Your task to perform on an android device: Search for asus rog on bestbuy, select the first entry, add it to the cart, then select checkout. Image 0: 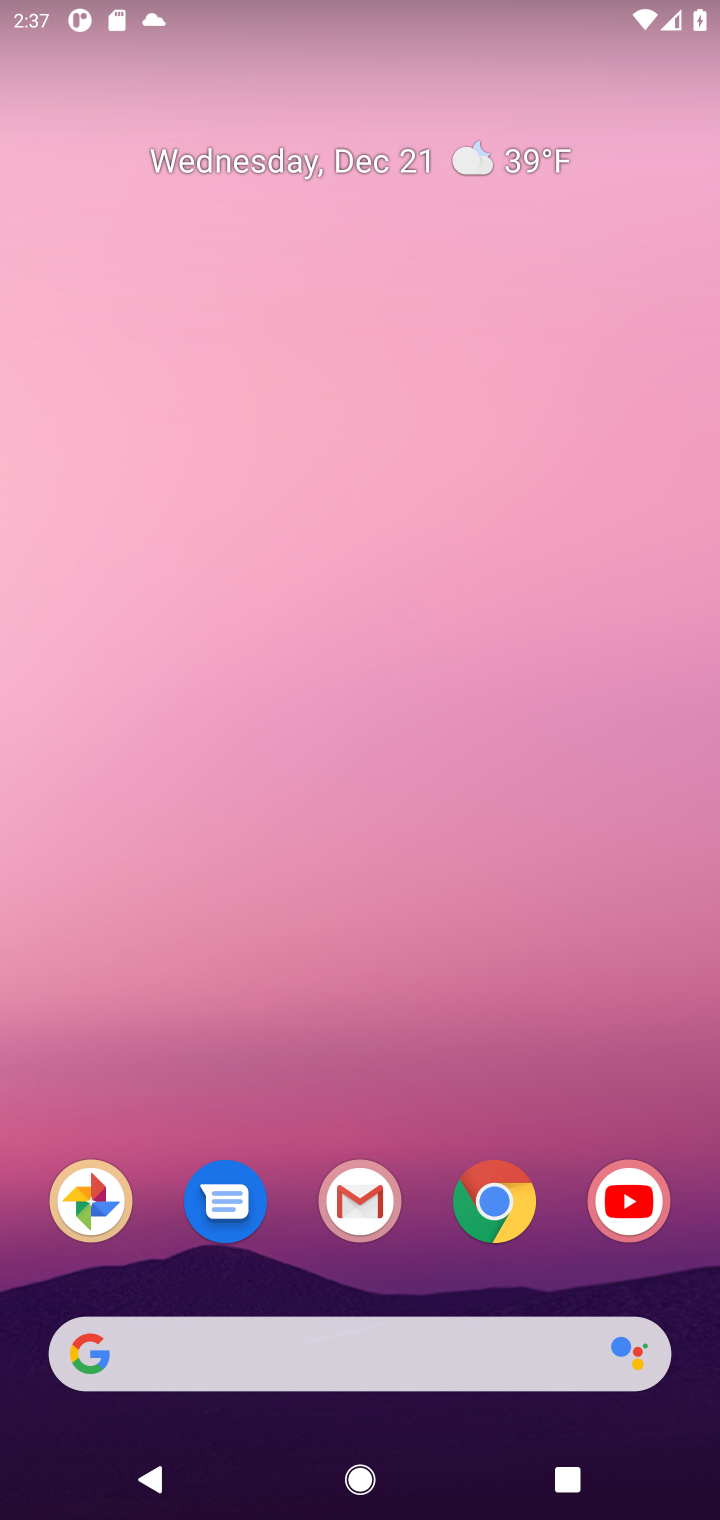
Step 0: click (486, 1217)
Your task to perform on an android device: Search for asus rog on bestbuy, select the first entry, add it to the cart, then select checkout. Image 1: 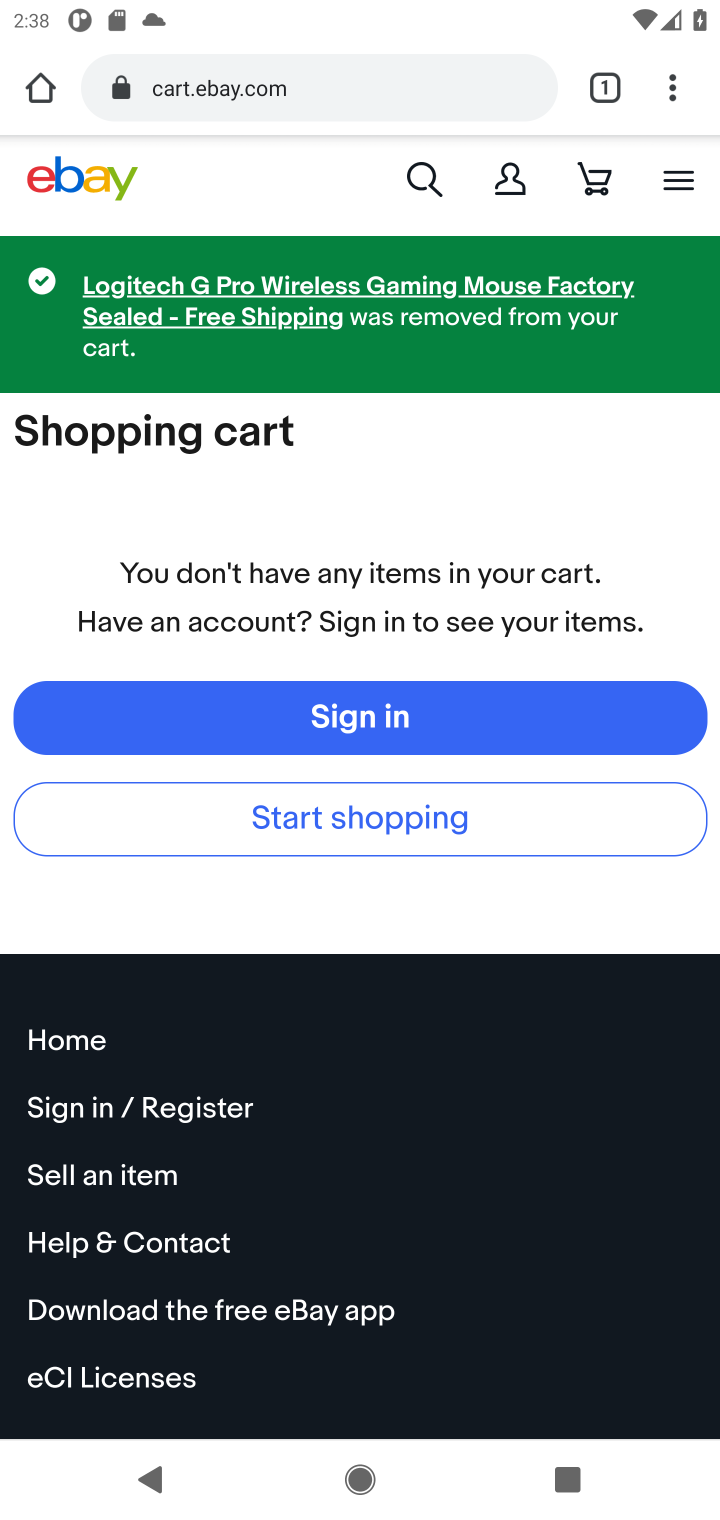
Step 1: click (238, 90)
Your task to perform on an android device: Search for asus rog on bestbuy, select the first entry, add it to the cart, then select checkout. Image 2: 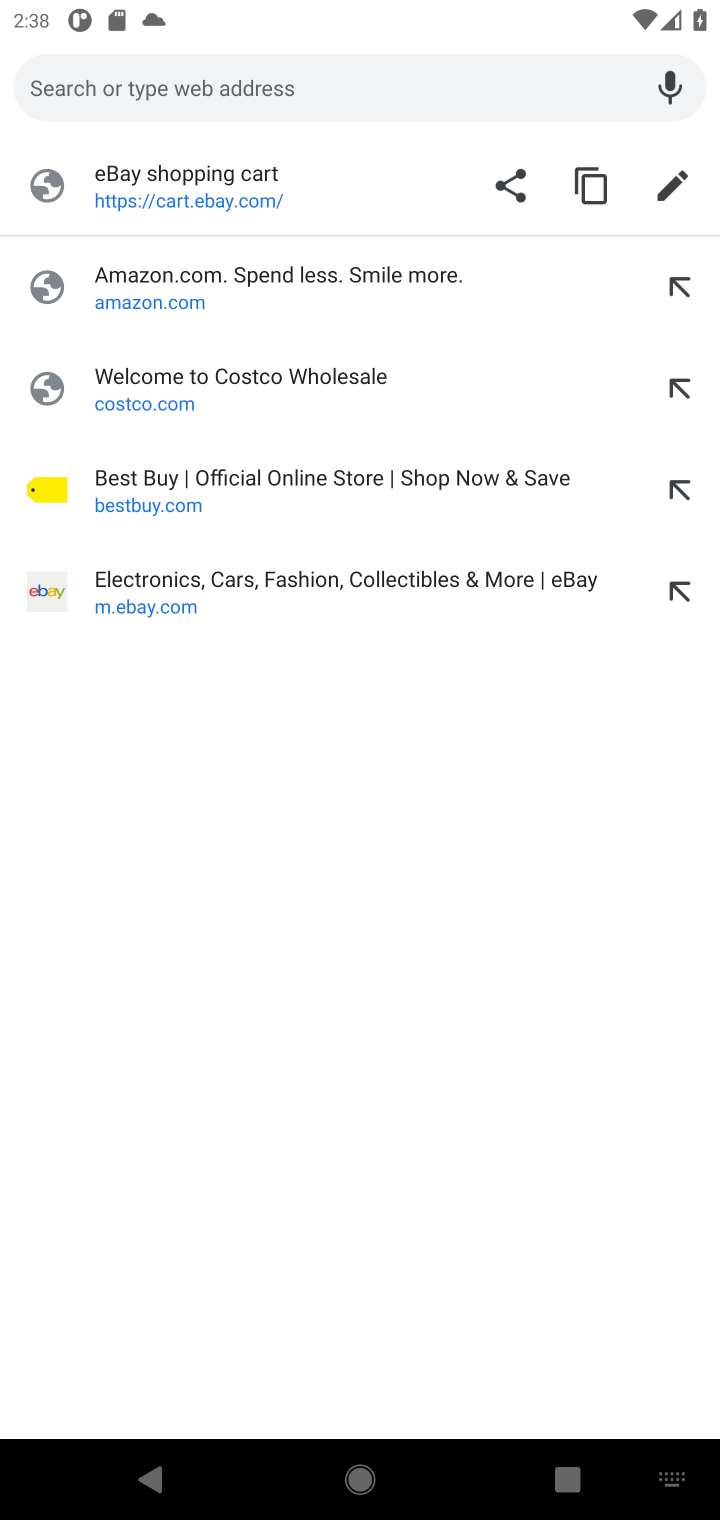
Step 2: click (150, 480)
Your task to perform on an android device: Search for asus rog on bestbuy, select the first entry, add it to the cart, then select checkout. Image 3: 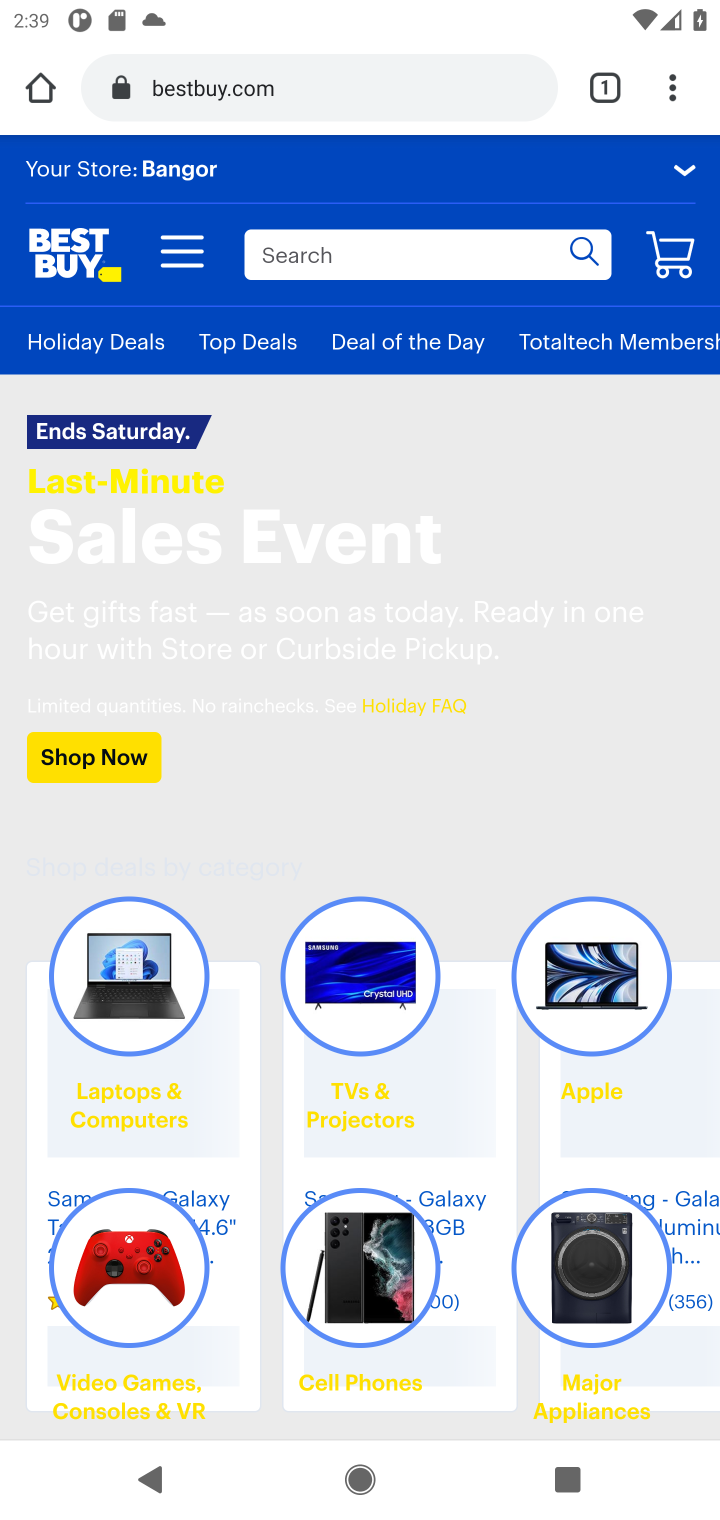
Step 3: click (271, 250)
Your task to perform on an android device: Search for asus rog on bestbuy, select the first entry, add it to the cart, then select checkout. Image 4: 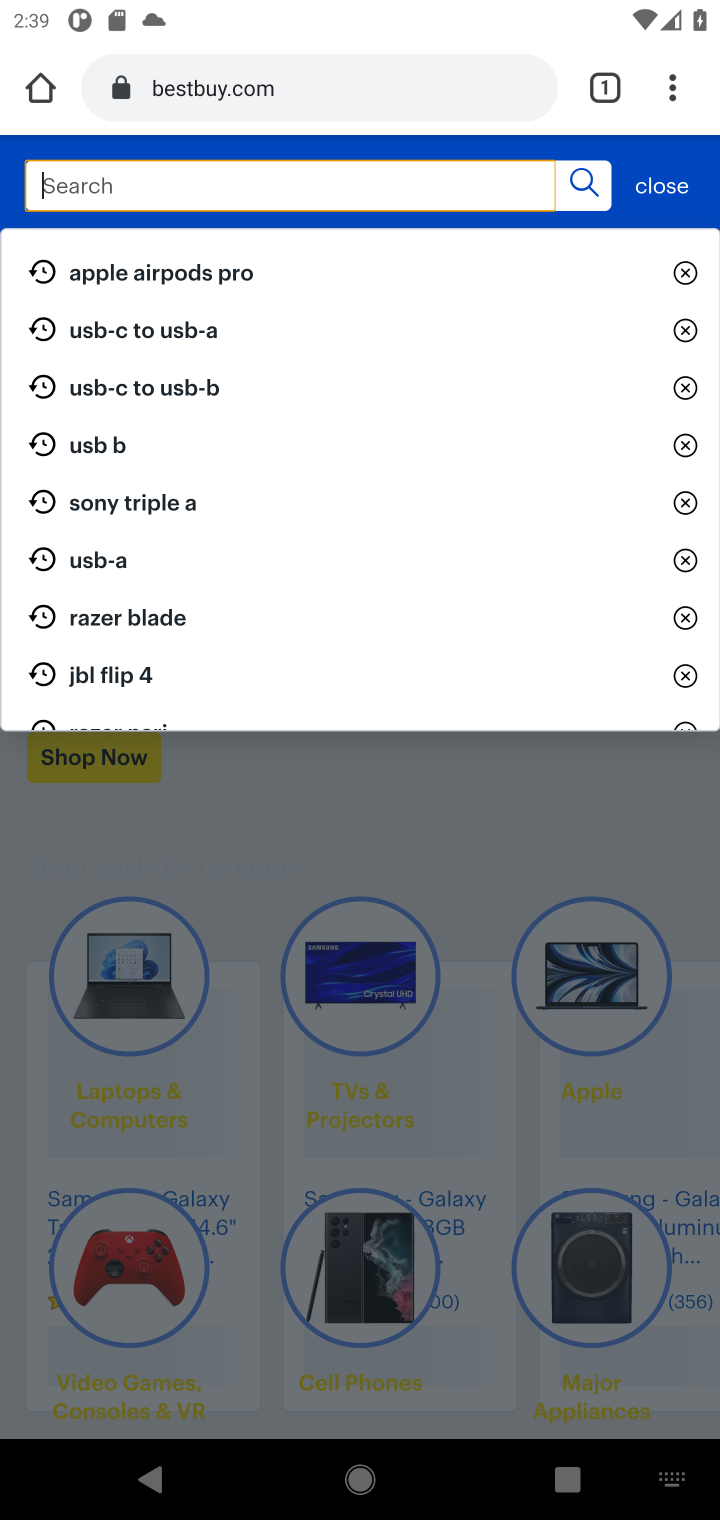
Step 4: type "asus rog"
Your task to perform on an android device: Search for asus rog on bestbuy, select the first entry, add it to the cart, then select checkout. Image 5: 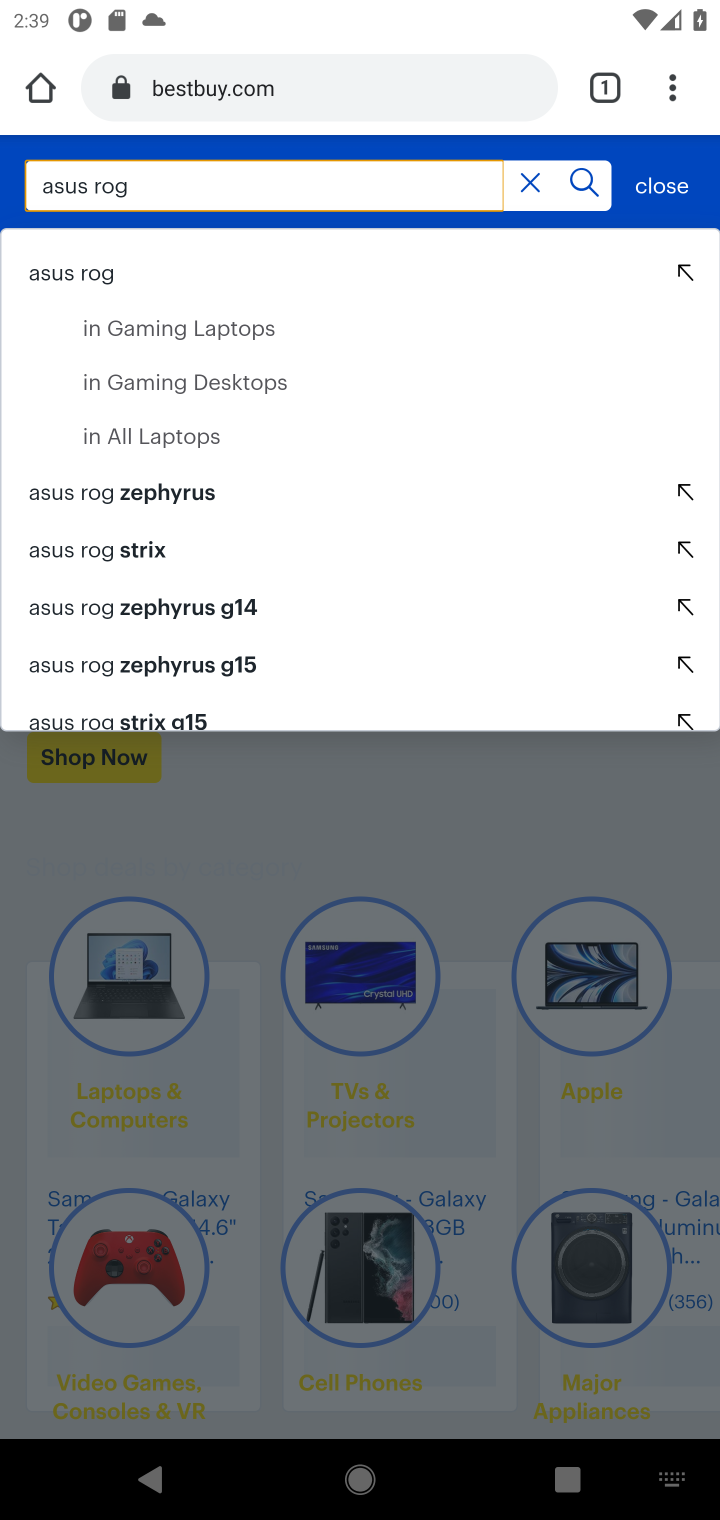
Step 5: click (60, 280)
Your task to perform on an android device: Search for asus rog on bestbuy, select the first entry, add it to the cart, then select checkout. Image 6: 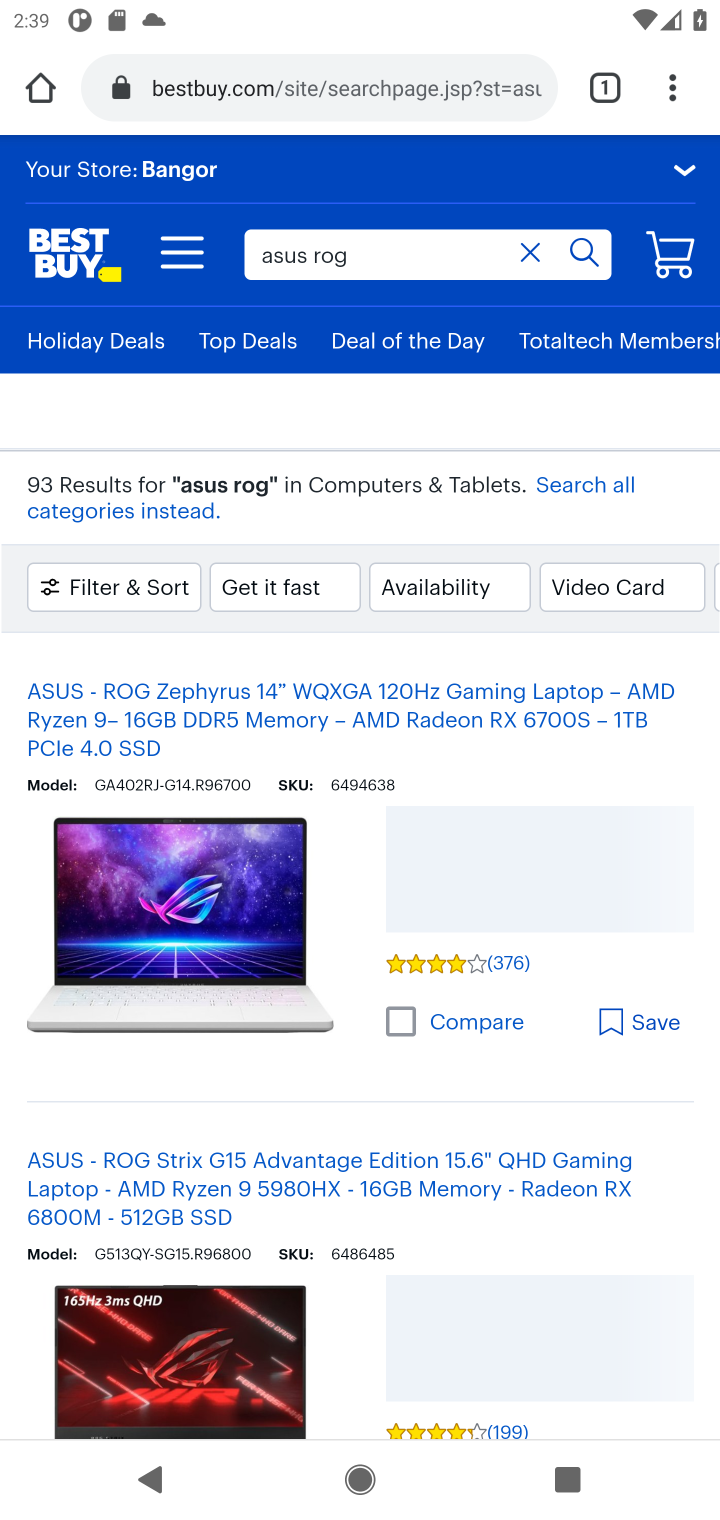
Step 6: drag from (297, 953) to (306, 582)
Your task to perform on an android device: Search for asus rog on bestbuy, select the first entry, add it to the cart, then select checkout. Image 7: 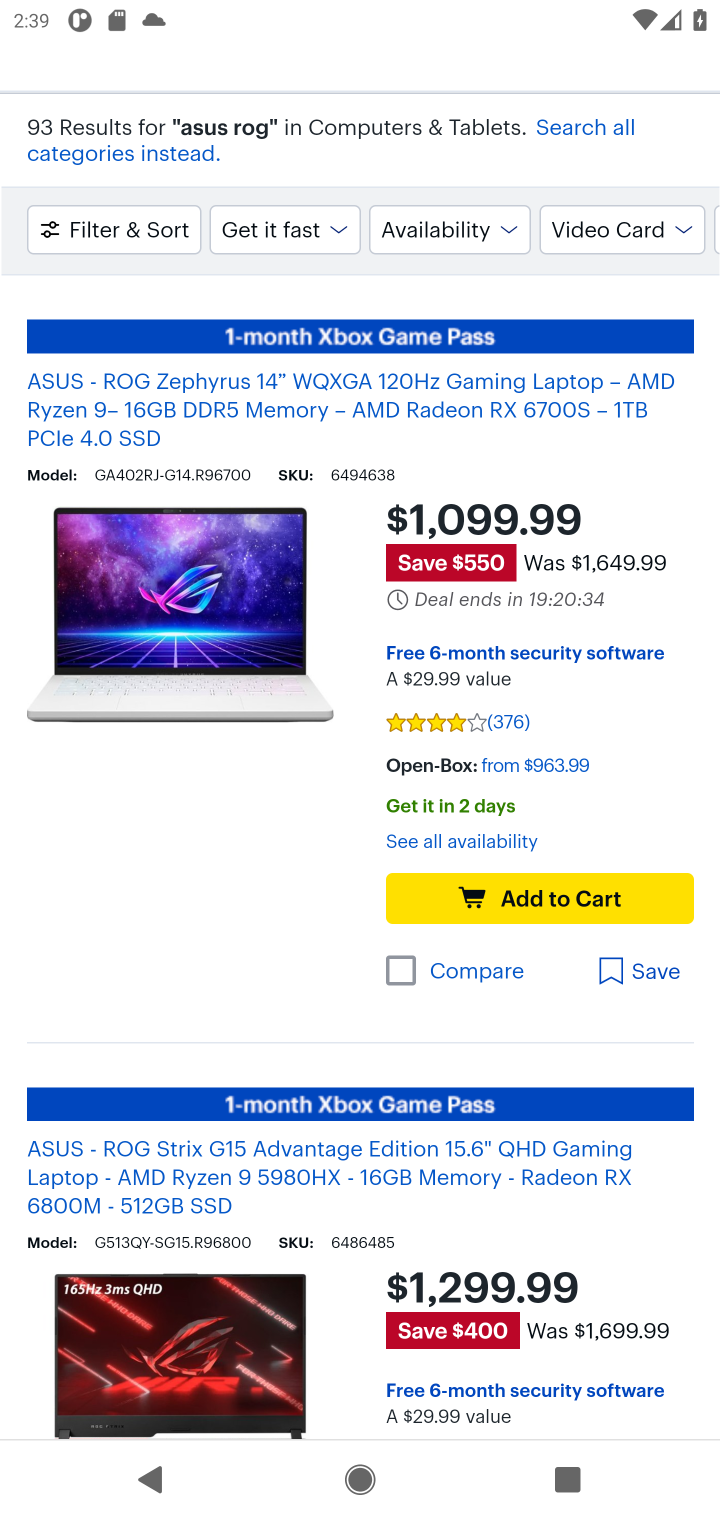
Step 7: click (536, 823)
Your task to perform on an android device: Search for asus rog on bestbuy, select the first entry, add it to the cart, then select checkout. Image 8: 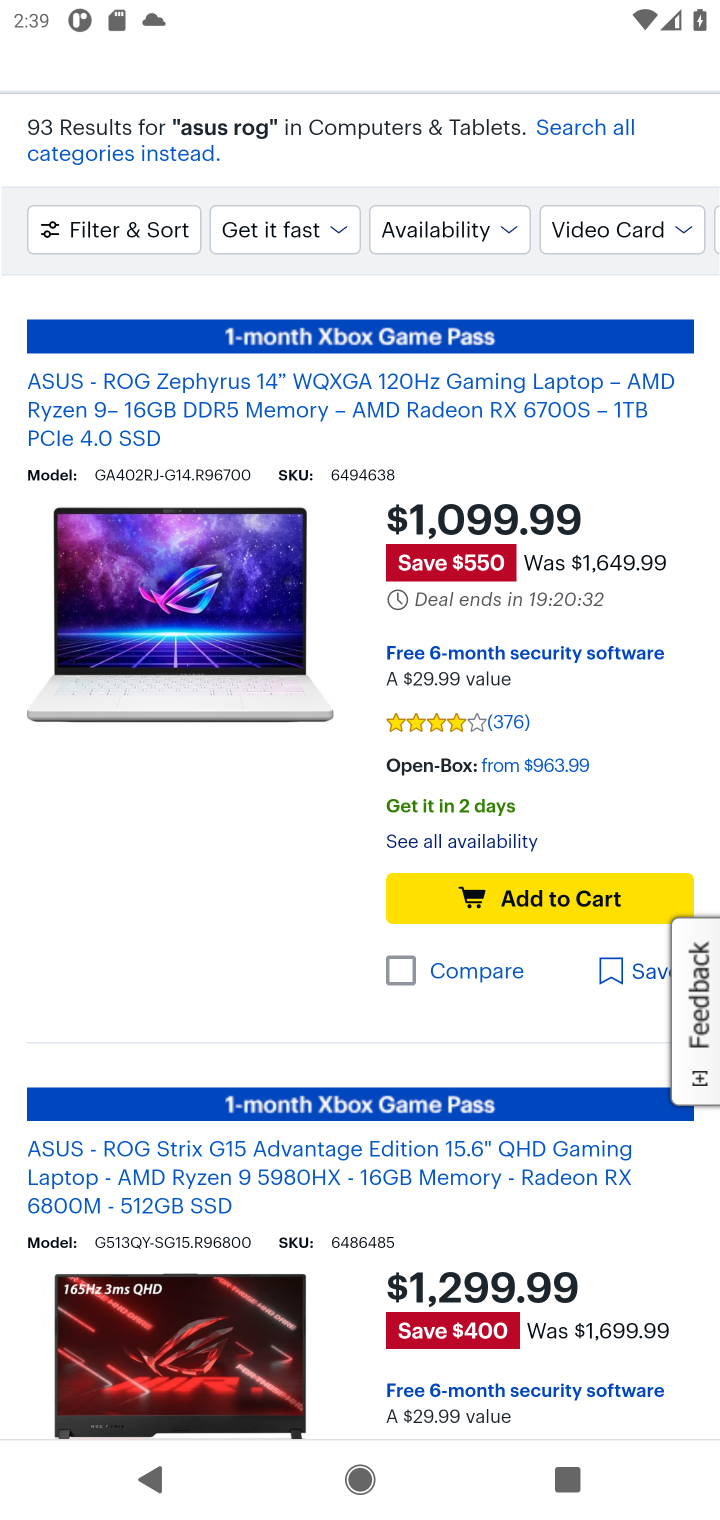
Step 8: click (520, 893)
Your task to perform on an android device: Search for asus rog on bestbuy, select the first entry, add it to the cart, then select checkout. Image 9: 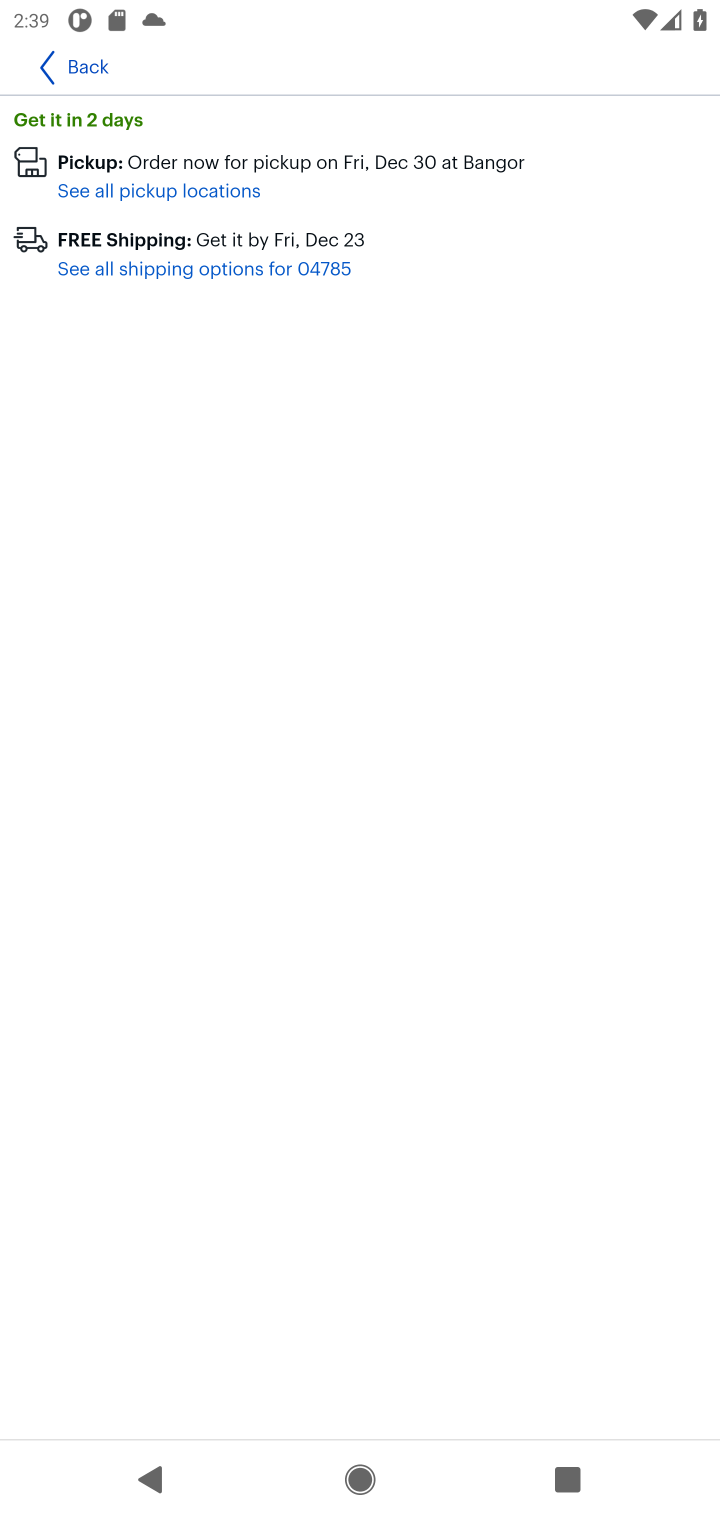
Step 9: click (71, 80)
Your task to perform on an android device: Search for asus rog on bestbuy, select the first entry, add it to the cart, then select checkout. Image 10: 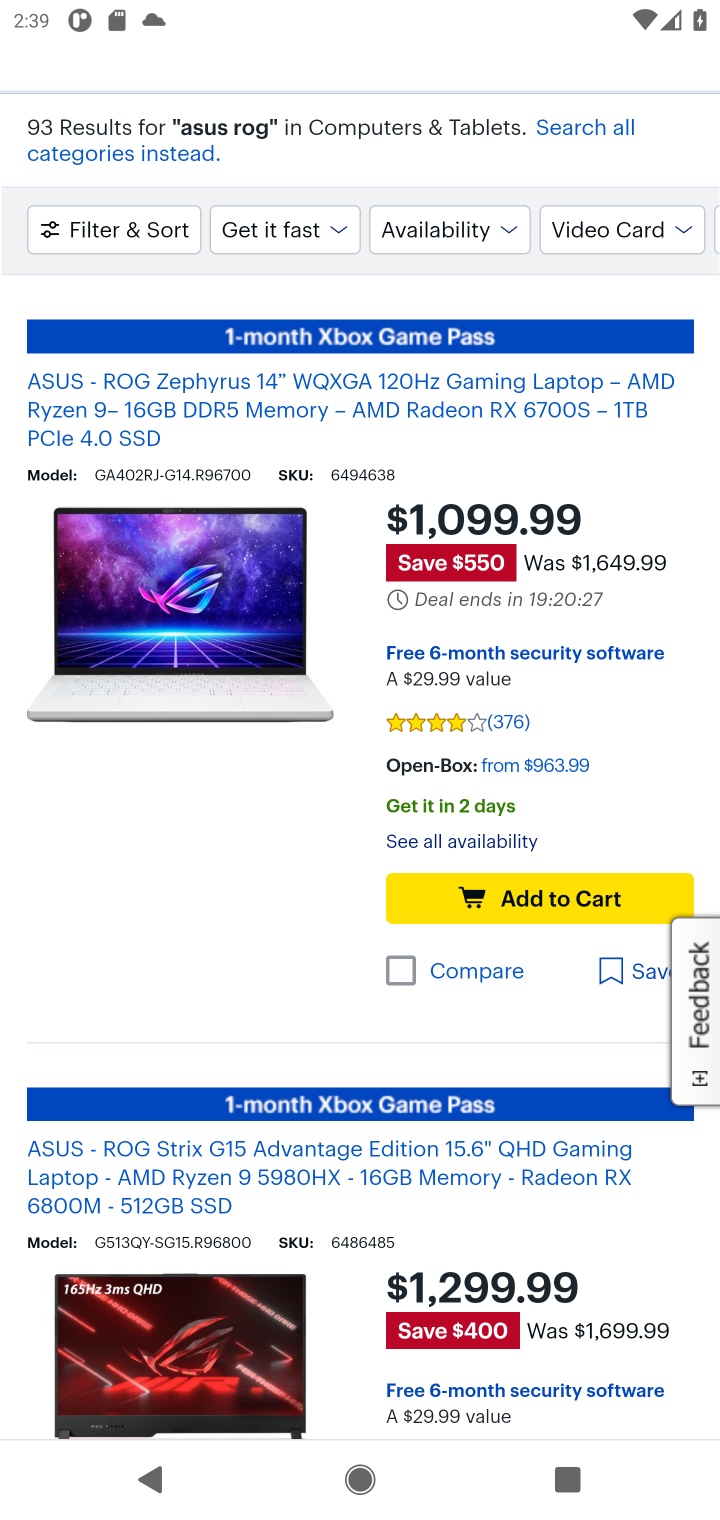
Step 10: click (467, 895)
Your task to perform on an android device: Search for asus rog on bestbuy, select the first entry, add it to the cart, then select checkout. Image 11: 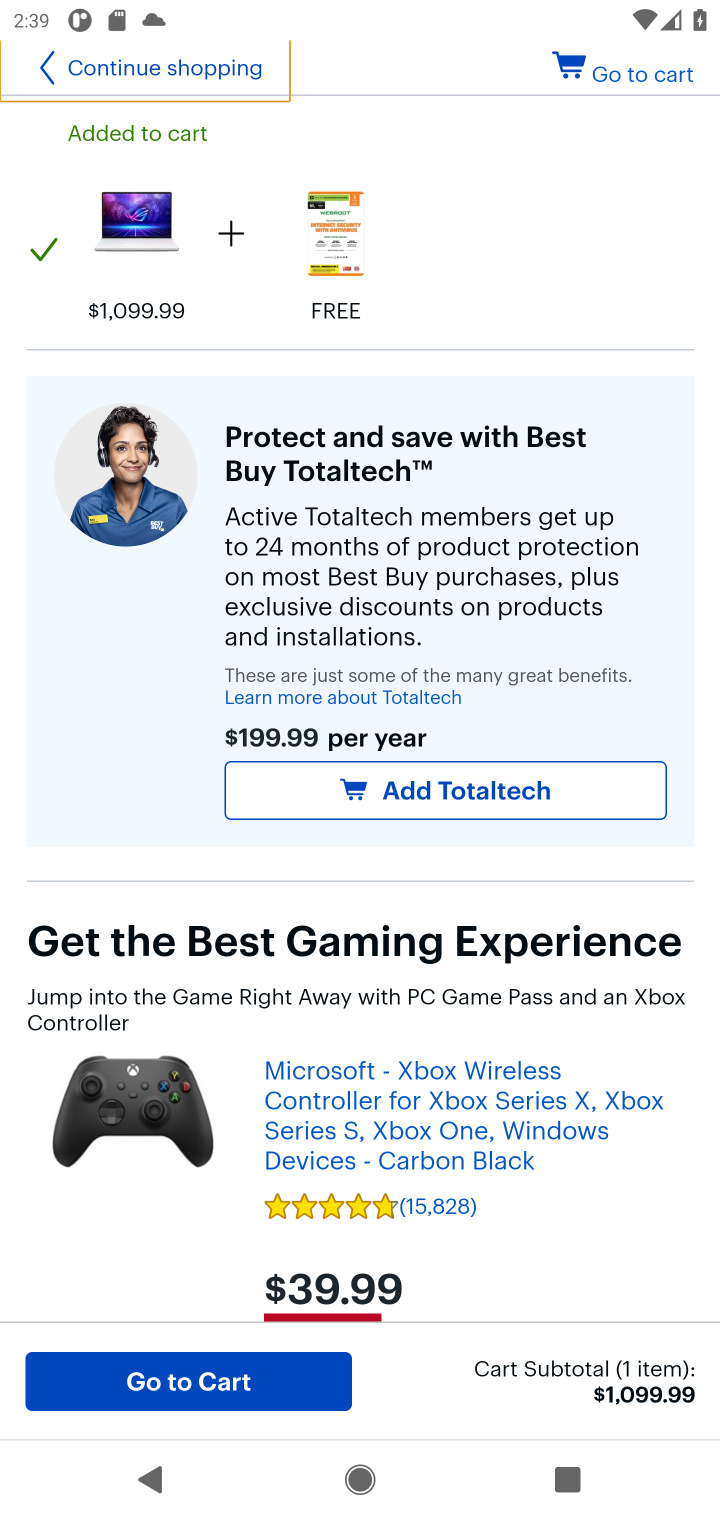
Step 11: click (639, 75)
Your task to perform on an android device: Search for asus rog on bestbuy, select the first entry, add it to the cart, then select checkout. Image 12: 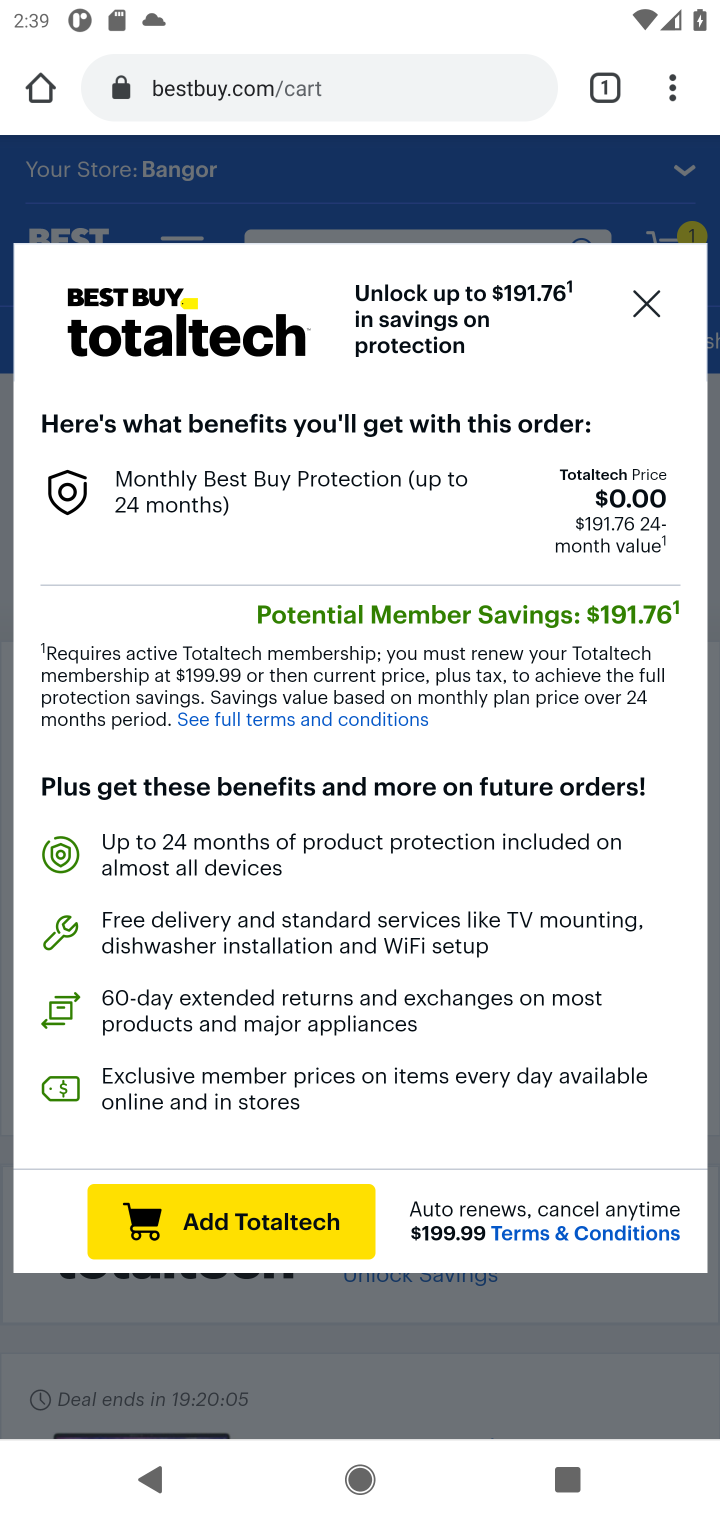
Step 12: click (334, 1064)
Your task to perform on an android device: Search for asus rog on bestbuy, select the first entry, add it to the cart, then select checkout. Image 13: 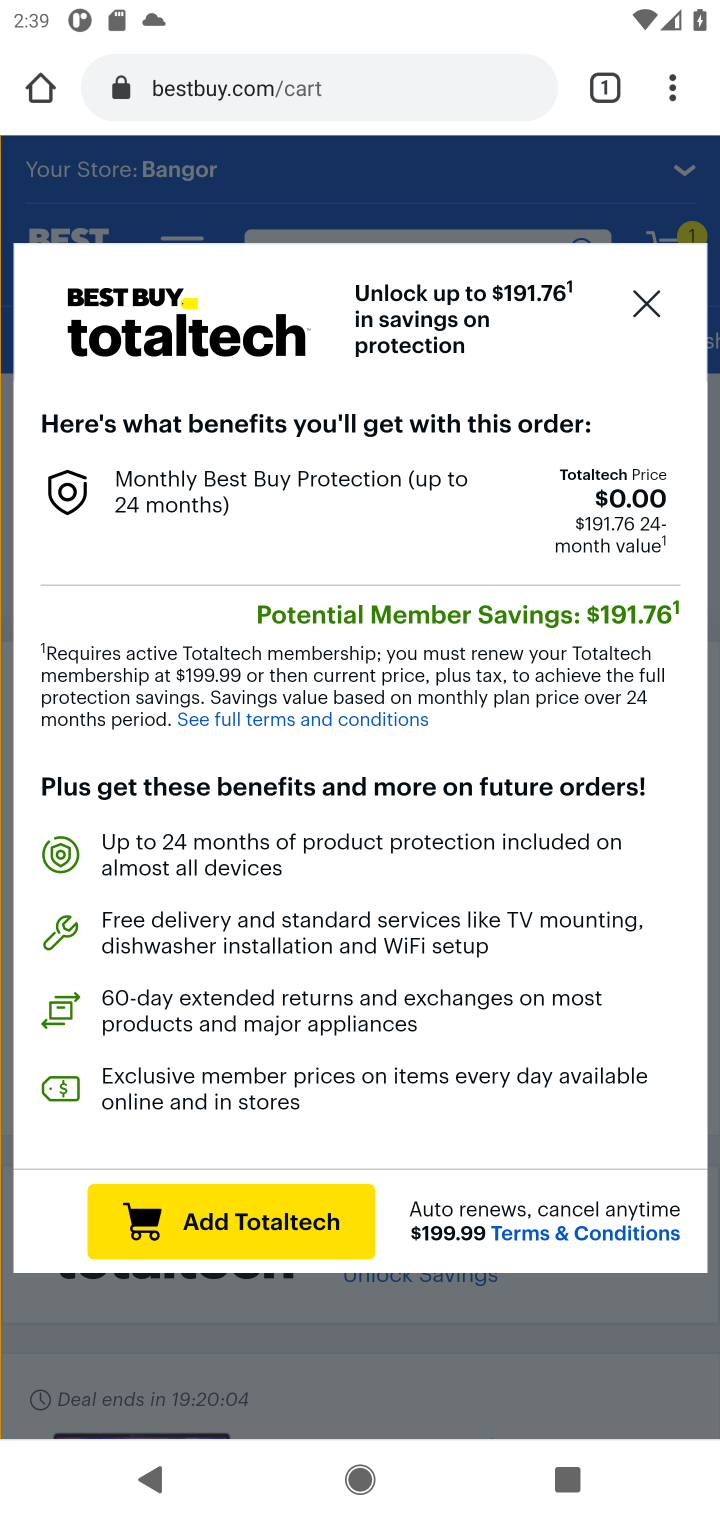
Step 13: click (653, 307)
Your task to perform on an android device: Search for asus rog on bestbuy, select the first entry, add it to the cart, then select checkout. Image 14: 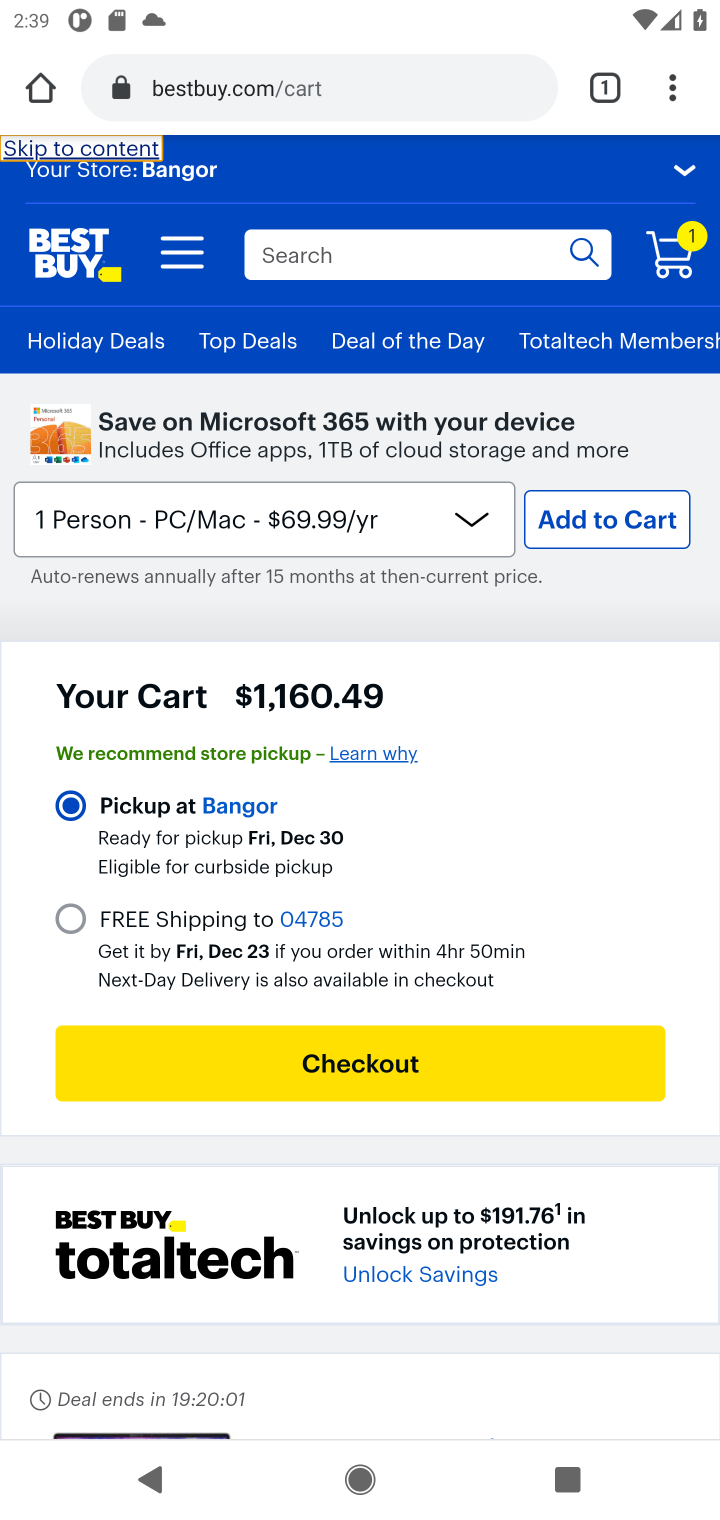
Step 14: click (340, 1059)
Your task to perform on an android device: Search for asus rog on bestbuy, select the first entry, add it to the cart, then select checkout. Image 15: 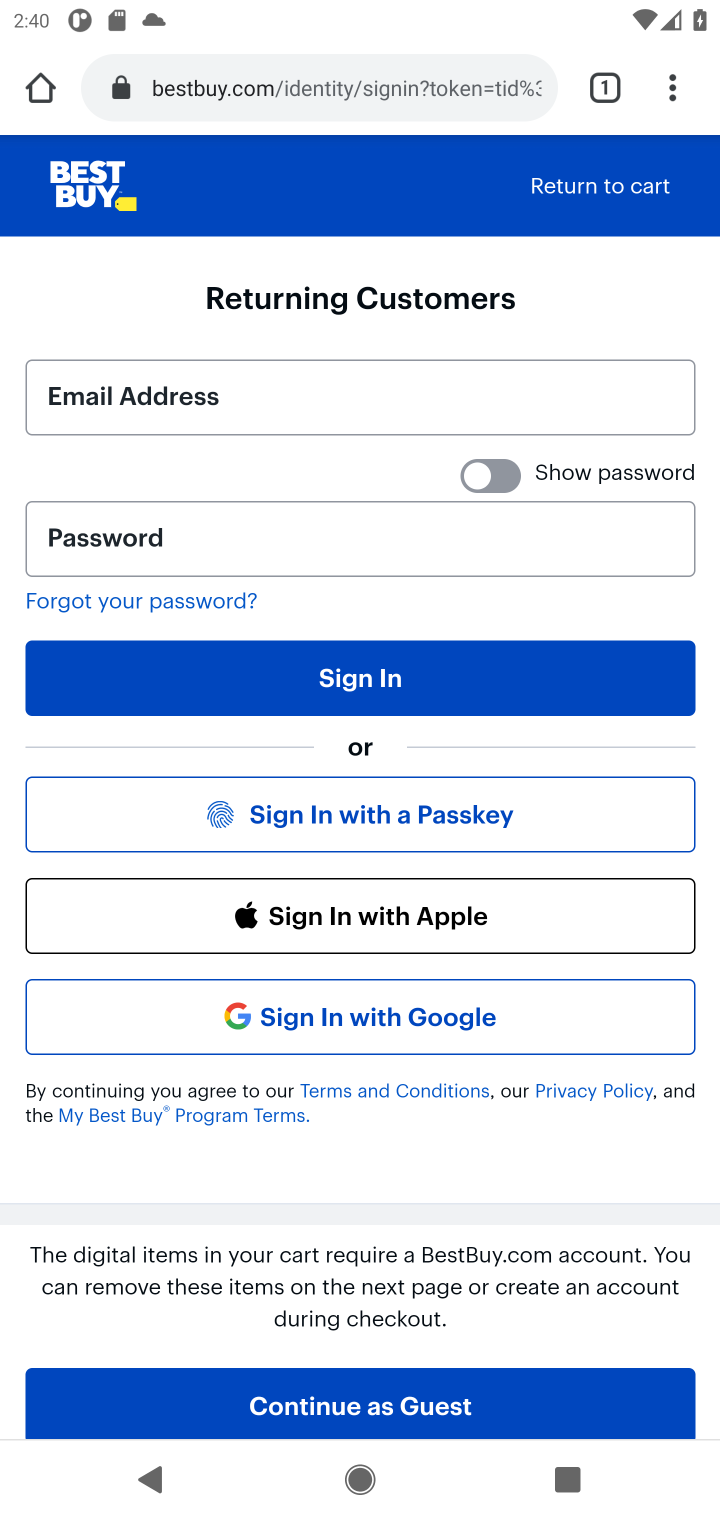
Step 15: task complete